Your task to perform on an android device: Do I have any events this weekend? Image 0: 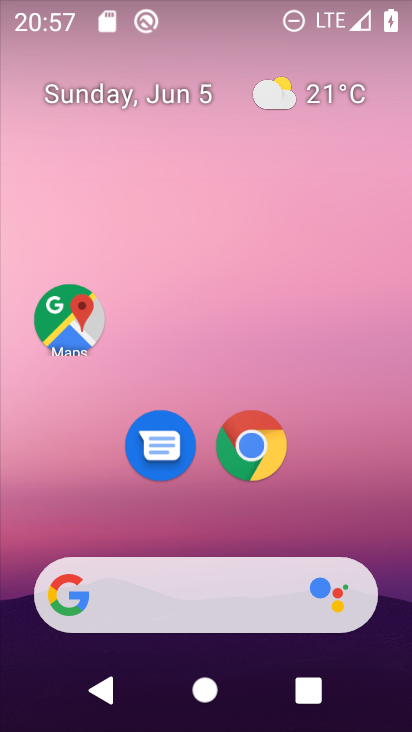
Step 0: drag from (375, 529) to (263, 21)
Your task to perform on an android device: Do I have any events this weekend? Image 1: 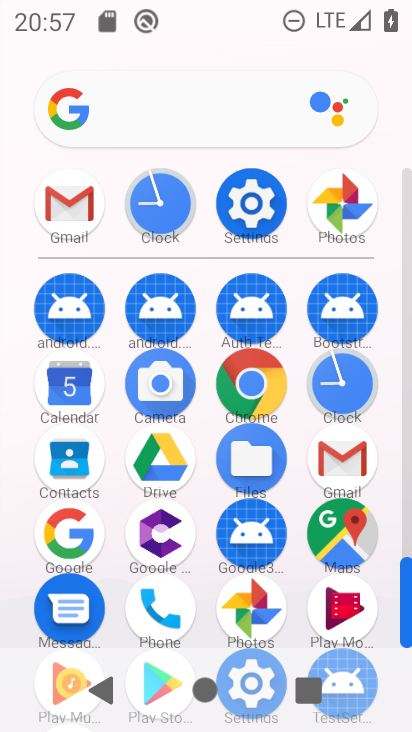
Step 1: click (55, 388)
Your task to perform on an android device: Do I have any events this weekend? Image 2: 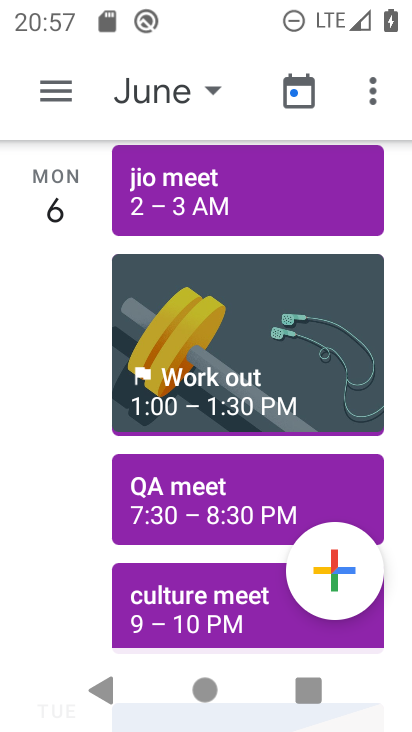
Step 2: click (43, 97)
Your task to perform on an android device: Do I have any events this weekend? Image 3: 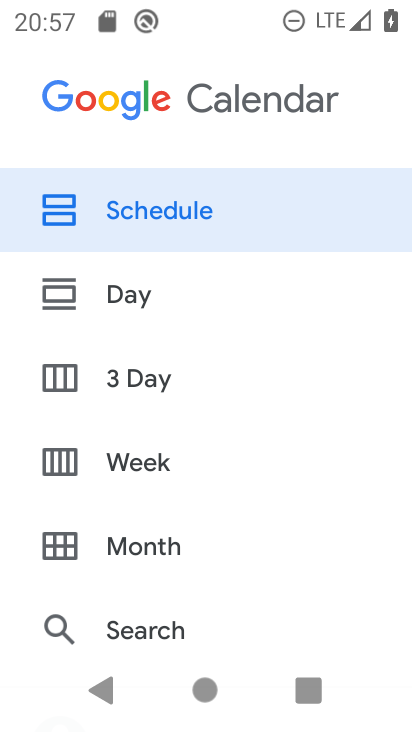
Step 3: click (131, 211)
Your task to perform on an android device: Do I have any events this weekend? Image 4: 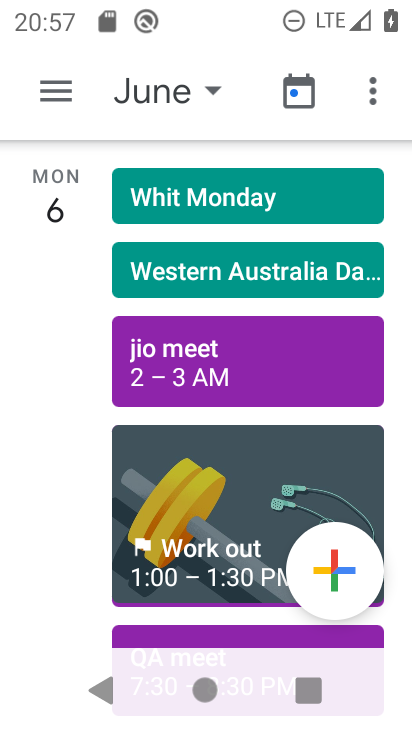
Step 4: task complete